Your task to perform on an android device: check android version Image 0: 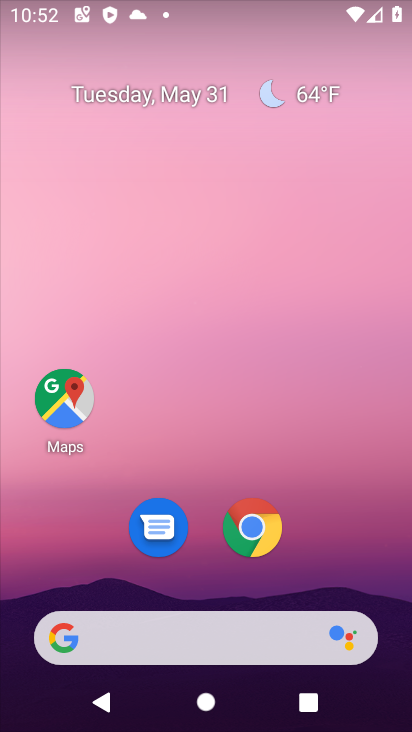
Step 0: drag from (148, 710) to (205, 14)
Your task to perform on an android device: check android version Image 1: 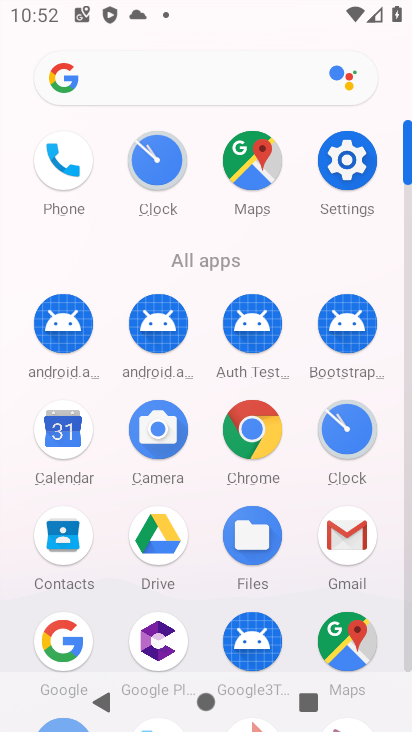
Step 1: click (350, 160)
Your task to perform on an android device: check android version Image 2: 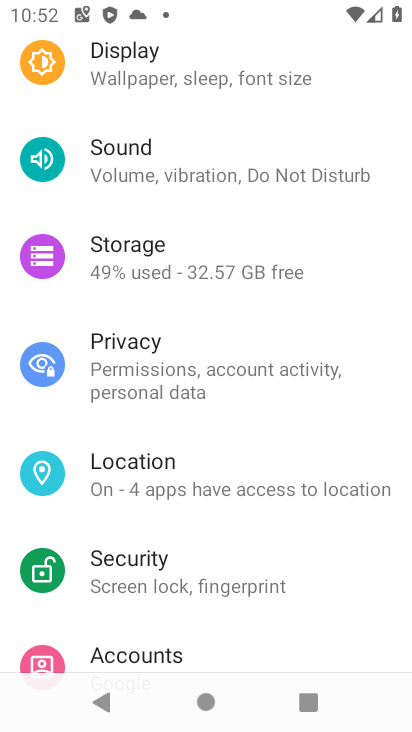
Step 2: drag from (295, 633) to (307, 21)
Your task to perform on an android device: check android version Image 3: 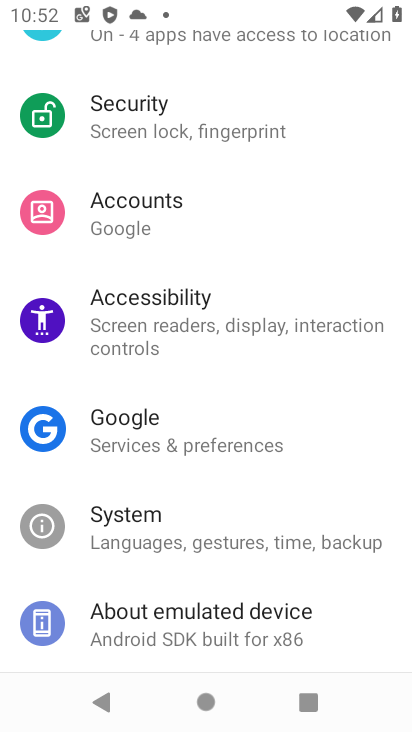
Step 3: drag from (282, 592) to (330, 1)
Your task to perform on an android device: check android version Image 4: 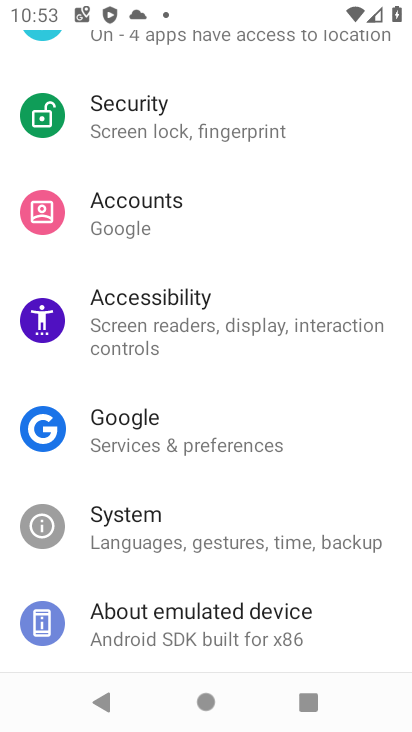
Step 4: click (282, 620)
Your task to perform on an android device: check android version Image 5: 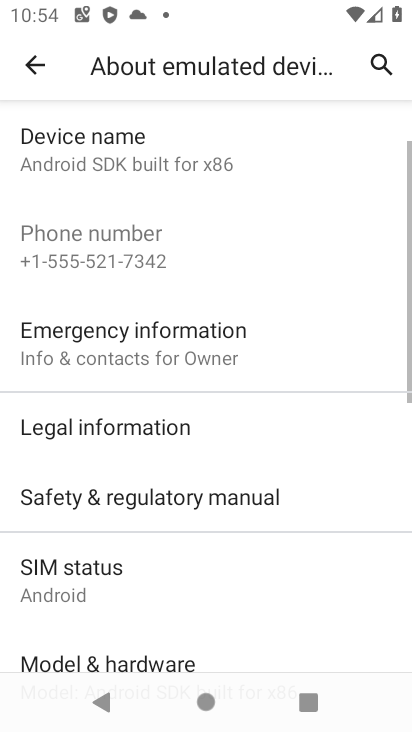
Step 5: task complete